Your task to perform on an android device: turn off javascript in the chrome app Image 0: 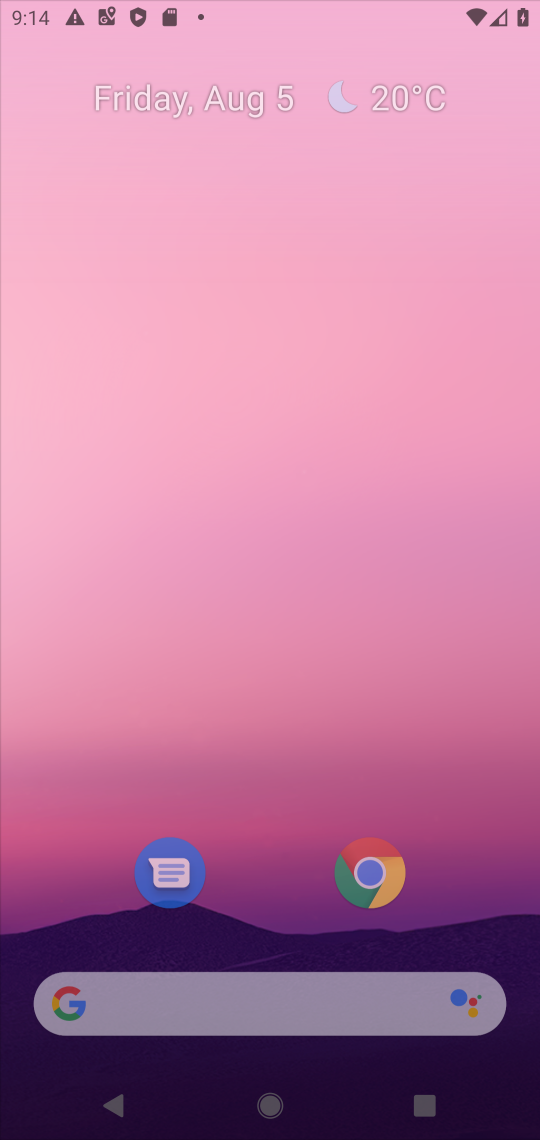
Step 0: press back button
Your task to perform on an android device: turn off javascript in the chrome app Image 1: 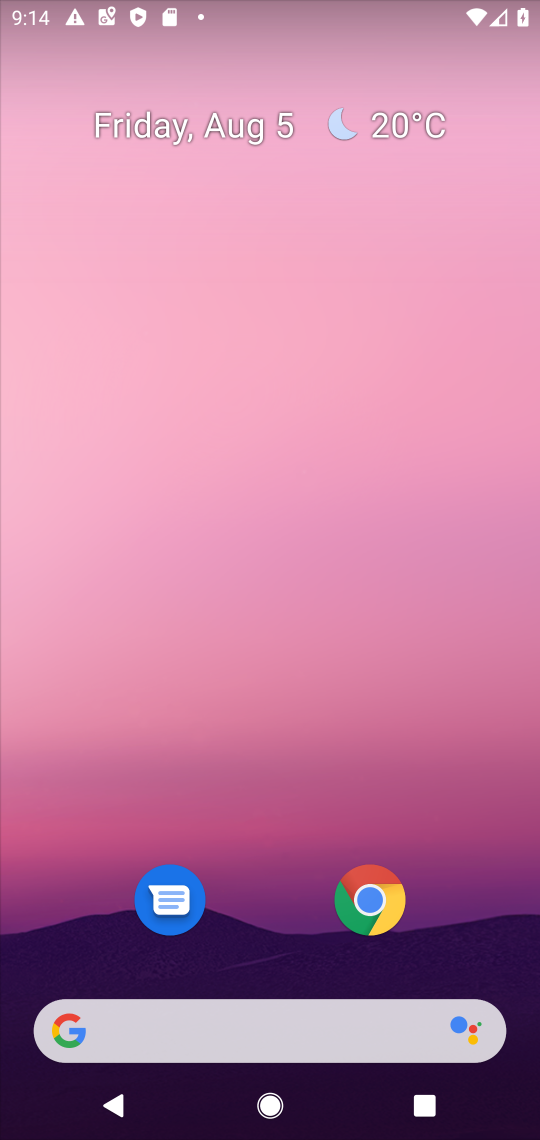
Step 1: press home button
Your task to perform on an android device: turn off javascript in the chrome app Image 2: 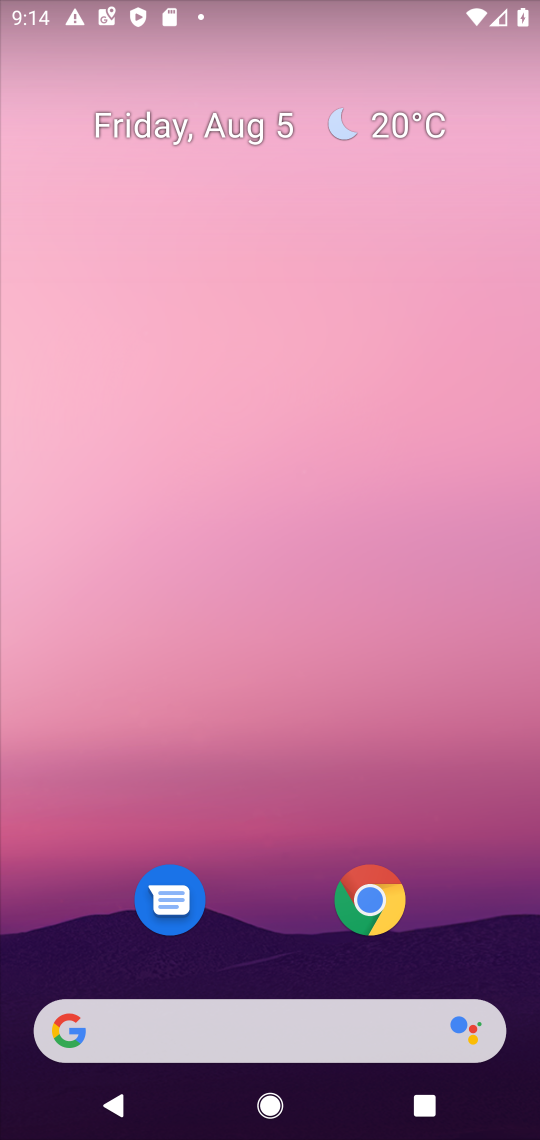
Step 2: drag from (264, 986) to (254, 25)
Your task to perform on an android device: turn off javascript in the chrome app Image 3: 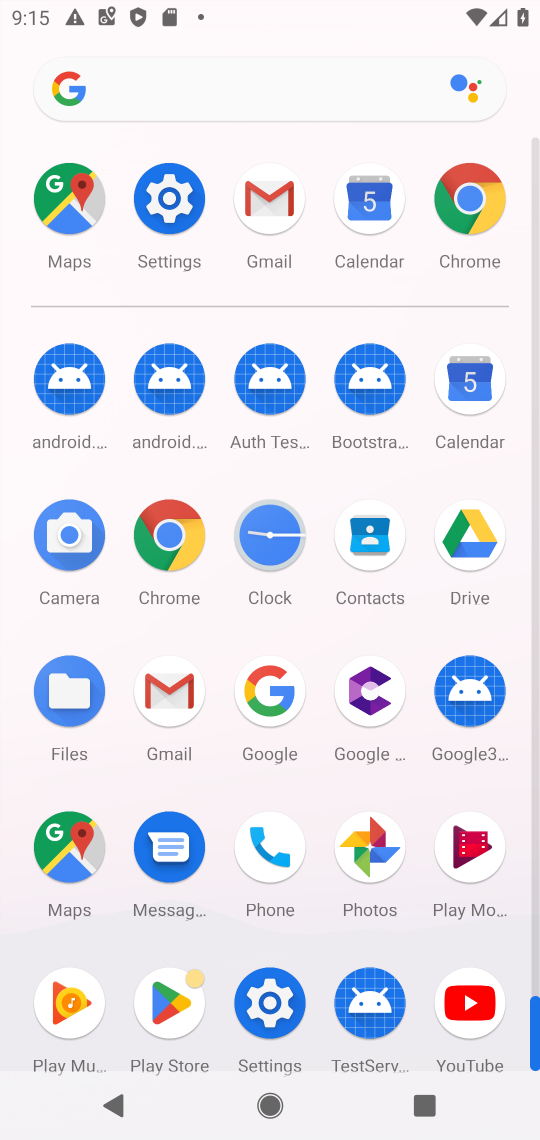
Step 3: click (162, 537)
Your task to perform on an android device: turn off javascript in the chrome app Image 4: 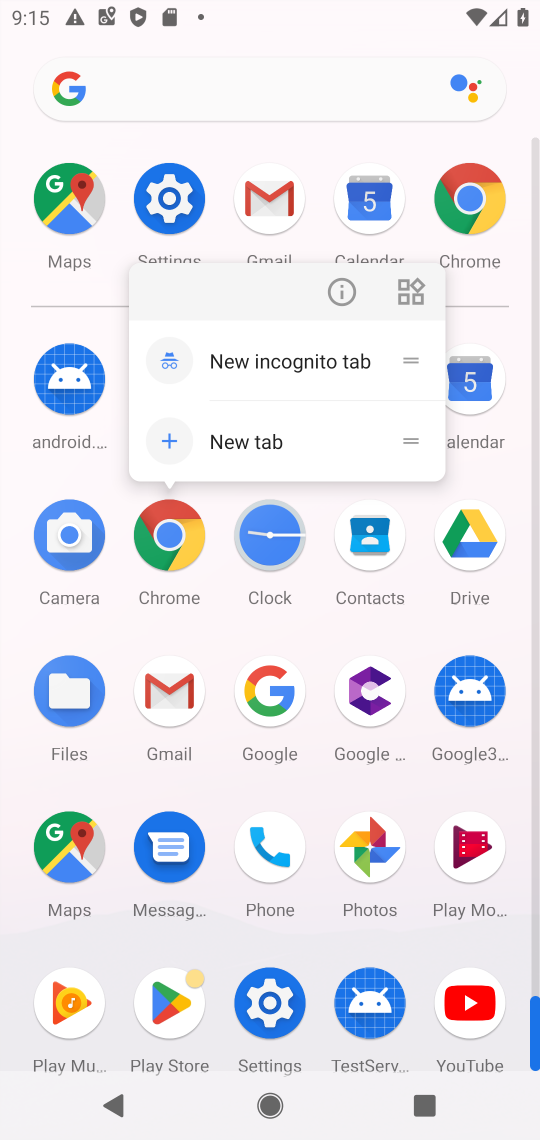
Step 4: click (162, 537)
Your task to perform on an android device: turn off javascript in the chrome app Image 5: 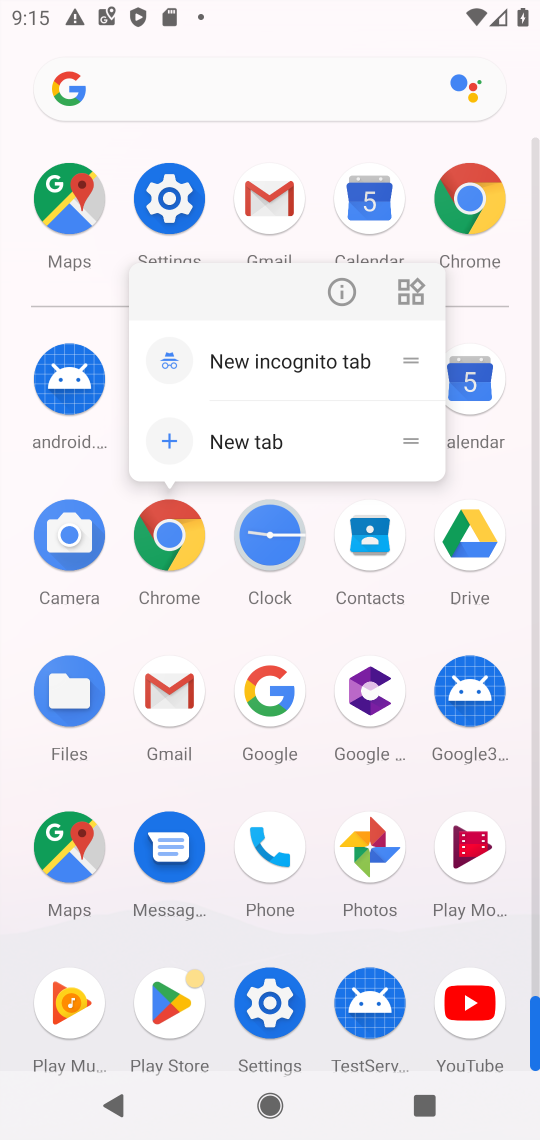
Step 5: click (162, 537)
Your task to perform on an android device: turn off javascript in the chrome app Image 6: 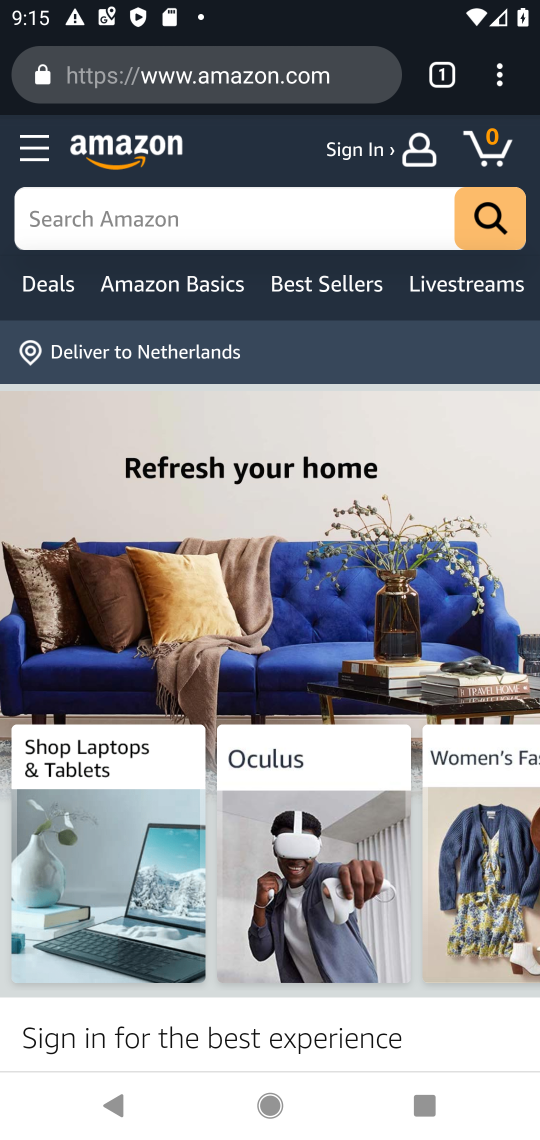
Step 6: drag from (488, 69) to (223, 895)
Your task to perform on an android device: turn off javascript in the chrome app Image 7: 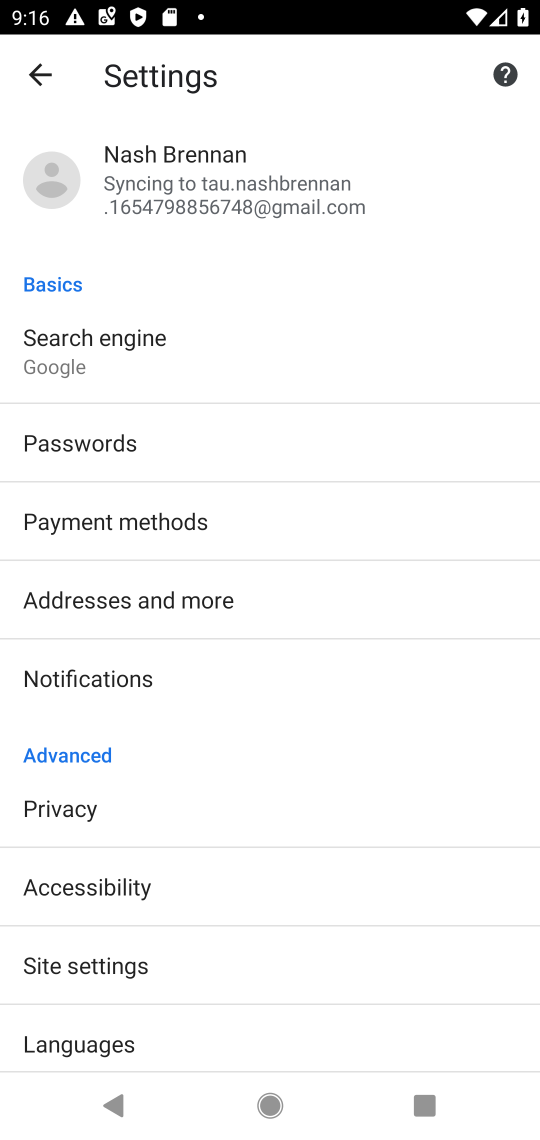
Step 7: click (136, 970)
Your task to perform on an android device: turn off javascript in the chrome app Image 8: 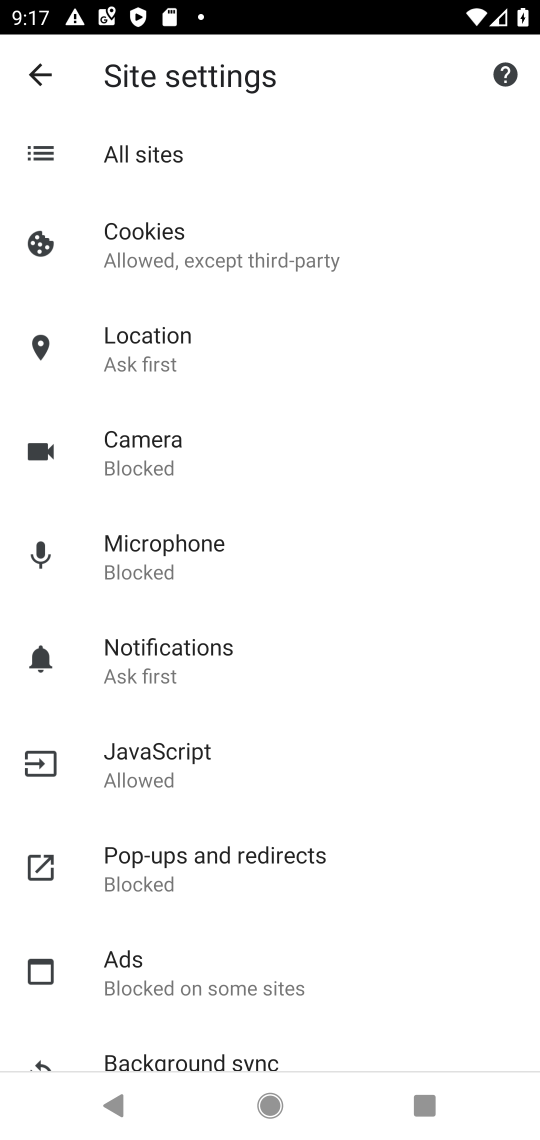
Step 8: click (223, 740)
Your task to perform on an android device: turn off javascript in the chrome app Image 9: 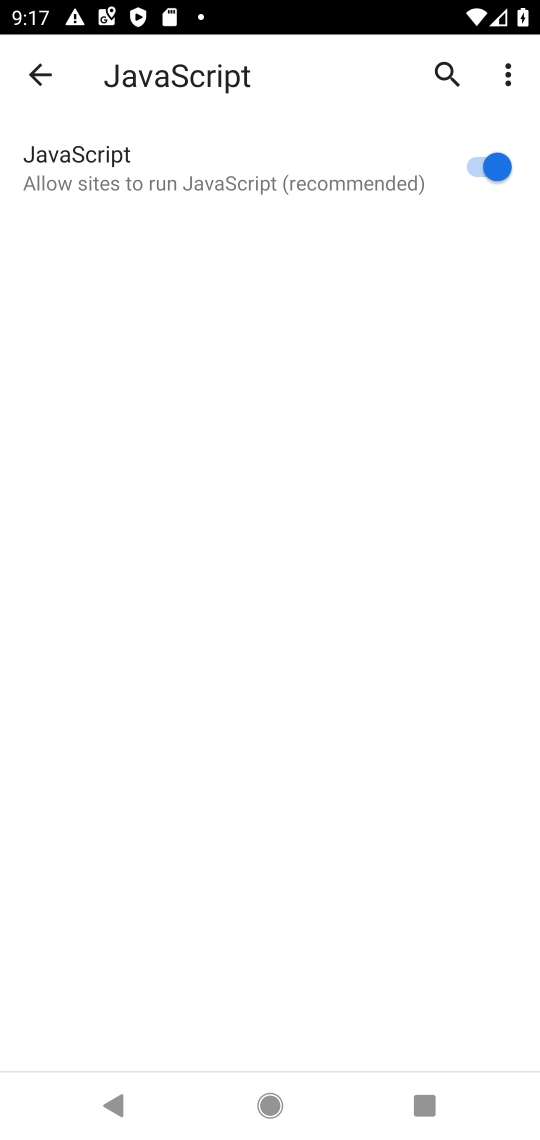
Step 9: click (411, 180)
Your task to perform on an android device: turn off javascript in the chrome app Image 10: 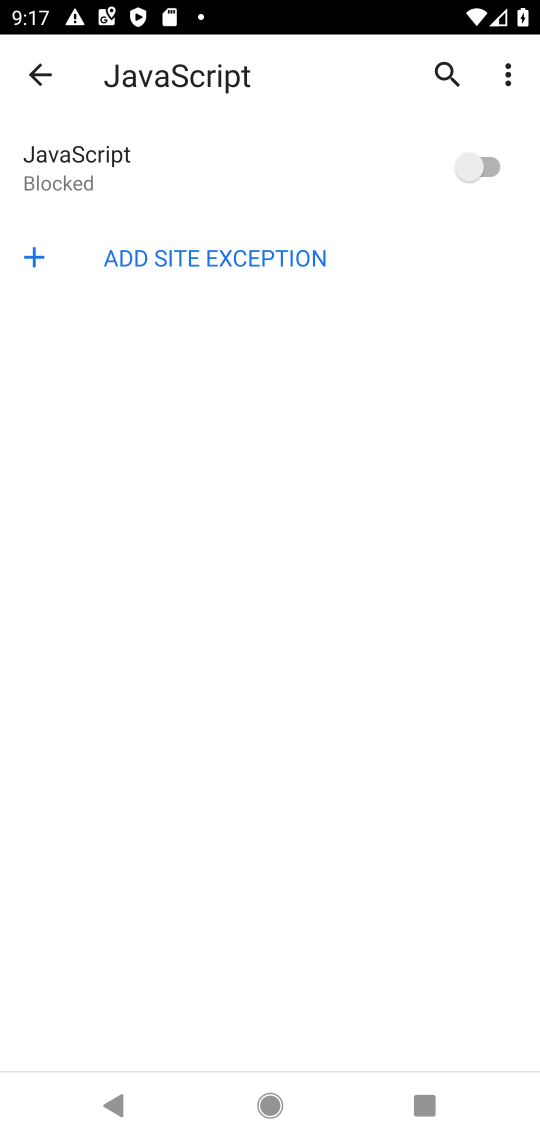
Step 10: task complete